Your task to perform on an android device: Play the last video I watched on Youtube Image 0: 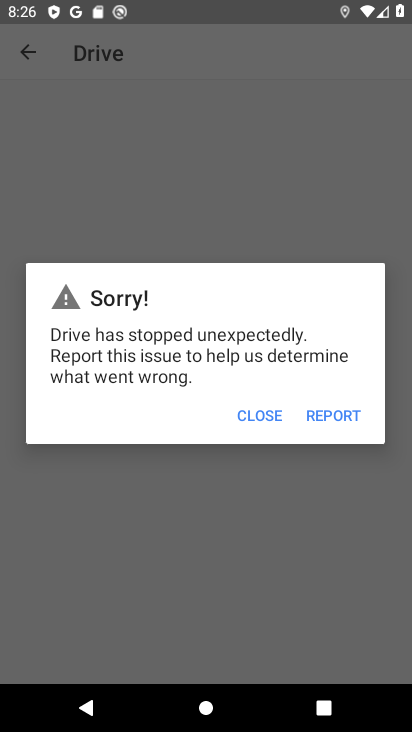
Step 0: press home button
Your task to perform on an android device: Play the last video I watched on Youtube Image 1: 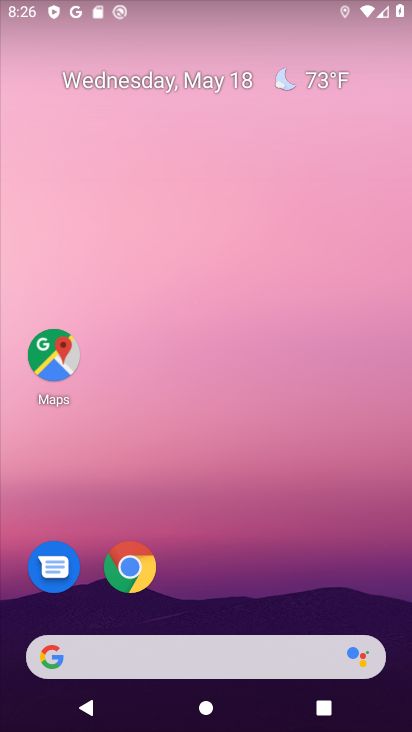
Step 1: drag from (203, 441) to (198, 4)
Your task to perform on an android device: Play the last video I watched on Youtube Image 2: 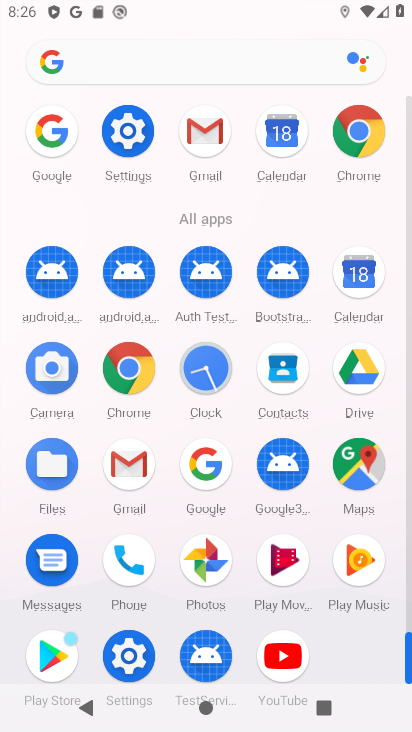
Step 2: click (284, 652)
Your task to perform on an android device: Play the last video I watched on Youtube Image 3: 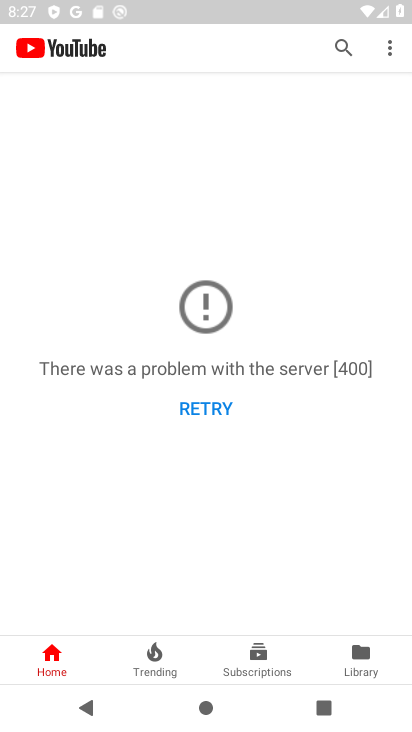
Step 3: click (341, 656)
Your task to perform on an android device: Play the last video I watched on Youtube Image 4: 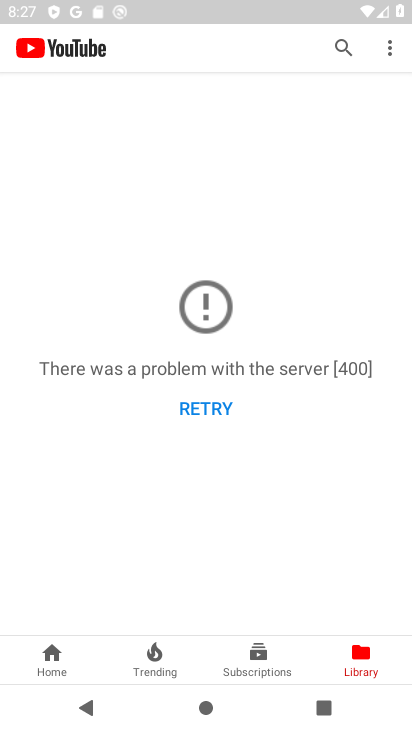
Step 4: task complete